Your task to perform on an android device: Open Google Chrome Image 0: 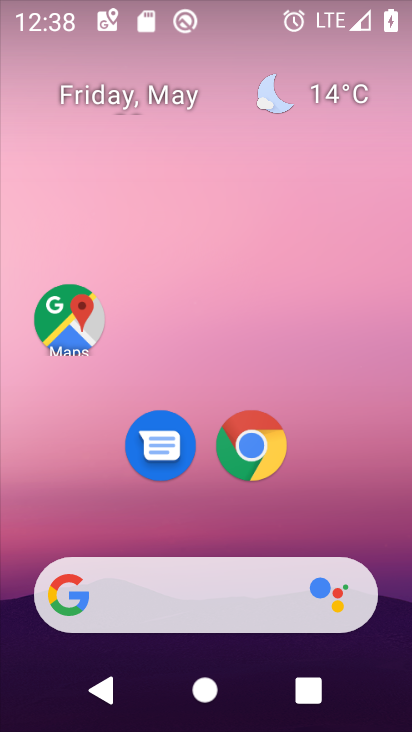
Step 0: press home button
Your task to perform on an android device: Open Google Chrome Image 1: 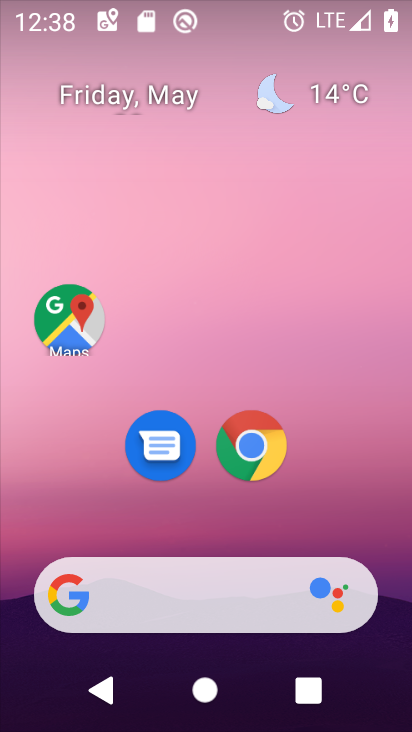
Step 1: click (261, 439)
Your task to perform on an android device: Open Google Chrome Image 2: 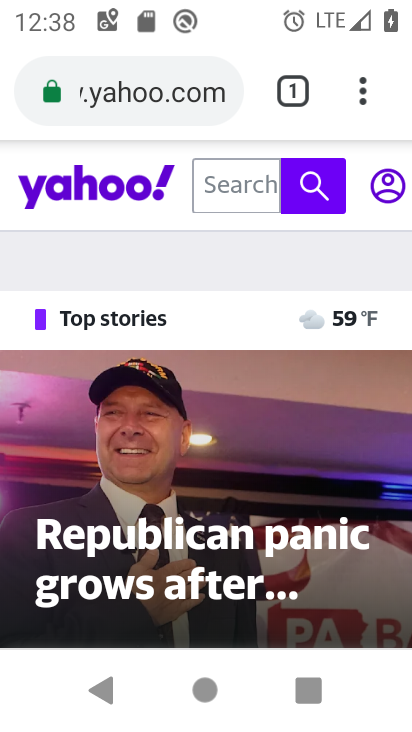
Step 2: click (284, 92)
Your task to perform on an android device: Open Google Chrome Image 3: 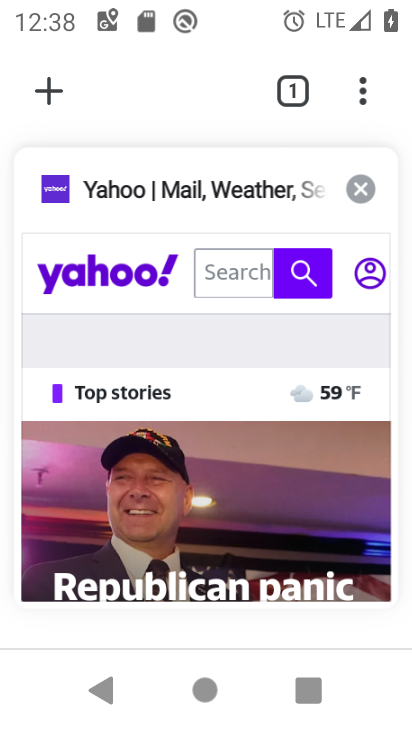
Step 3: click (364, 186)
Your task to perform on an android device: Open Google Chrome Image 4: 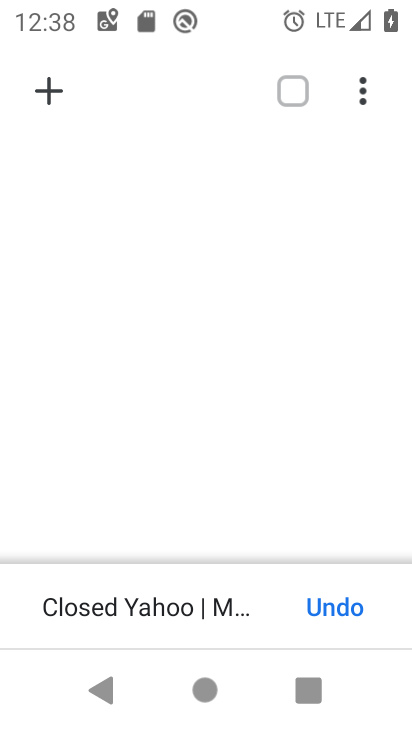
Step 4: click (42, 91)
Your task to perform on an android device: Open Google Chrome Image 5: 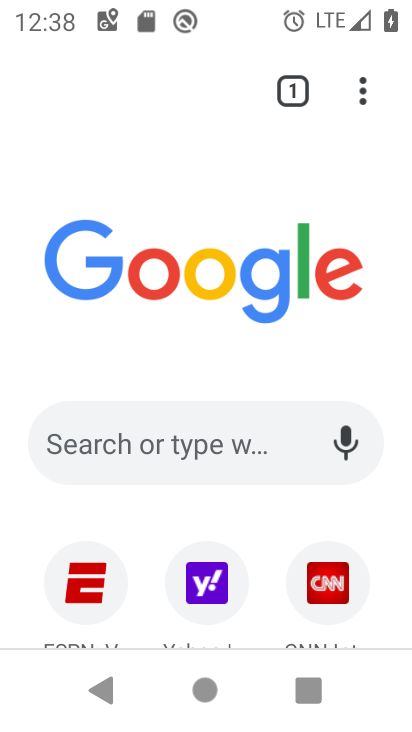
Step 5: task complete